Your task to perform on an android device: turn on improve location accuracy Image 0: 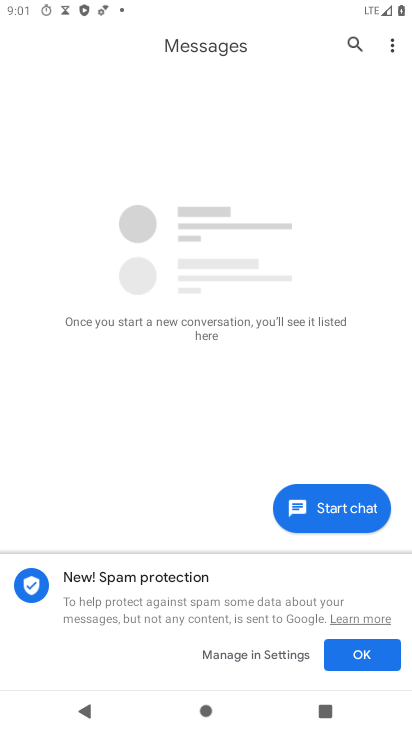
Step 0: press back button
Your task to perform on an android device: turn on improve location accuracy Image 1: 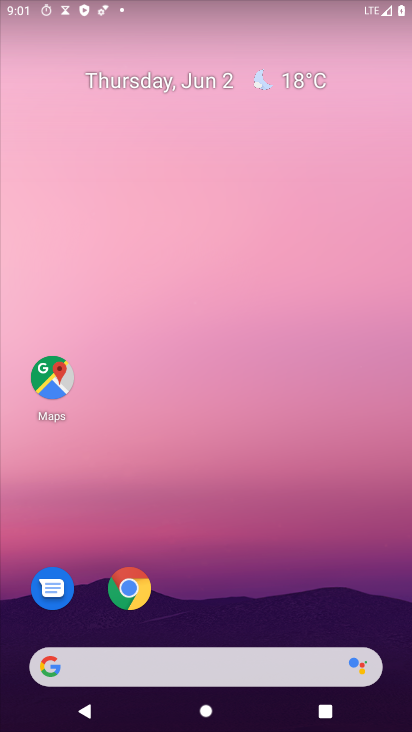
Step 1: drag from (222, 587) to (280, 78)
Your task to perform on an android device: turn on improve location accuracy Image 2: 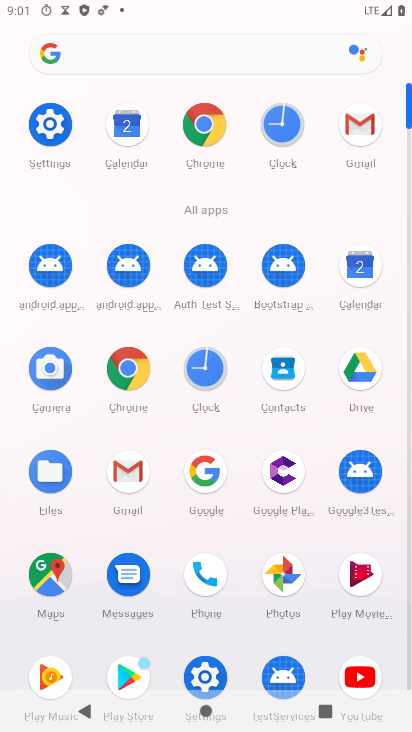
Step 2: click (55, 126)
Your task to perform on an android device: turn on improve location accuracy Image 3: 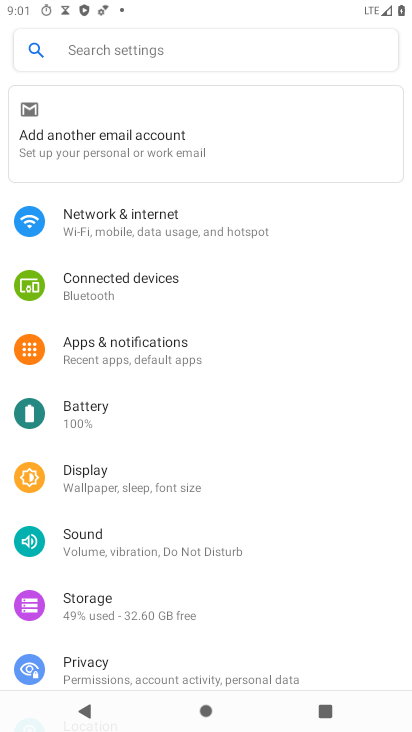
Step 3: drag from (111, 648) to (175, 193)
Your task to perform on an android device: turn on improve location accuracy Image 4: 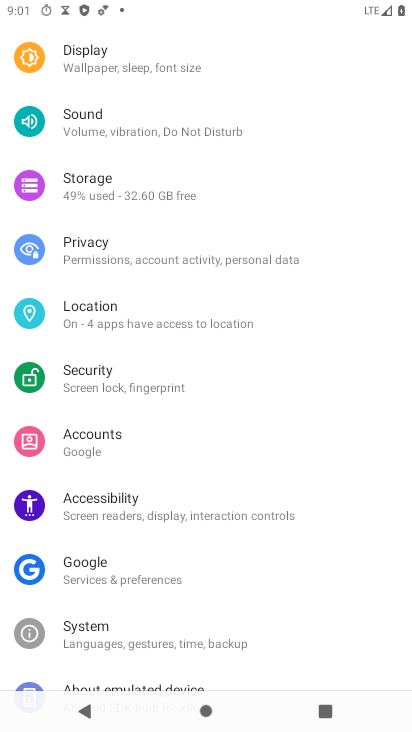
Step 4: click (119, 315)
Your task to perform on an android device: turn on improve location accuracy Image 5: 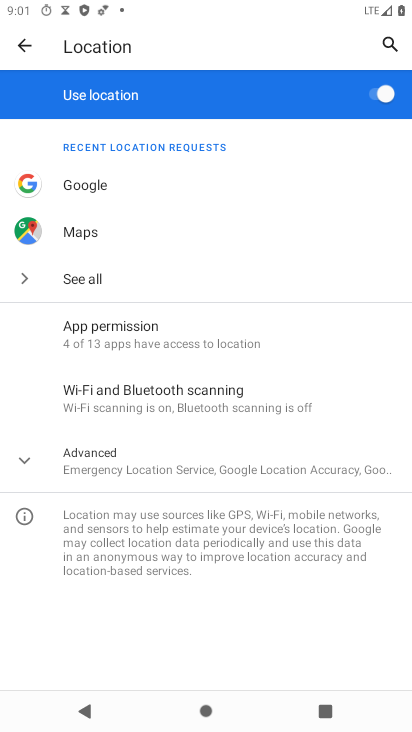
Step 5: click (141, 461)
Your task to perform on an android device: turn on improve location accuracy Image 6: 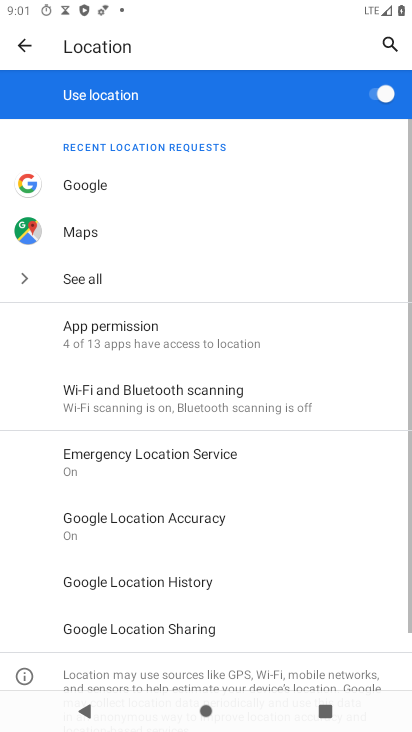
Step 6: click (183, 529)
Your task to perform on an android device: turn on improve location accuracy Image 7: 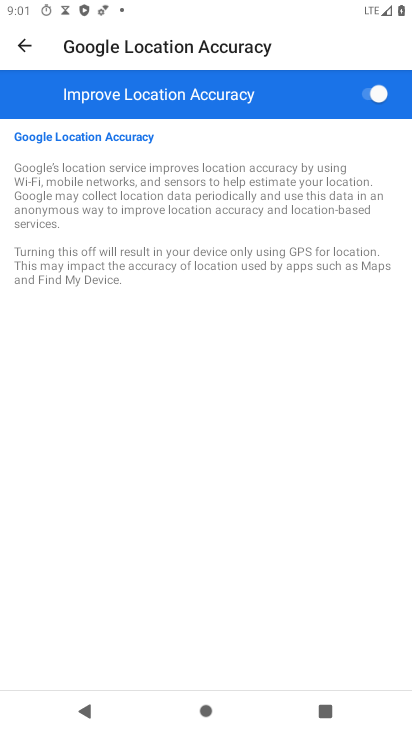
Step 7: task complete